Your task to perform on an android device: Open calendar and show me the second week of next month Image 0: 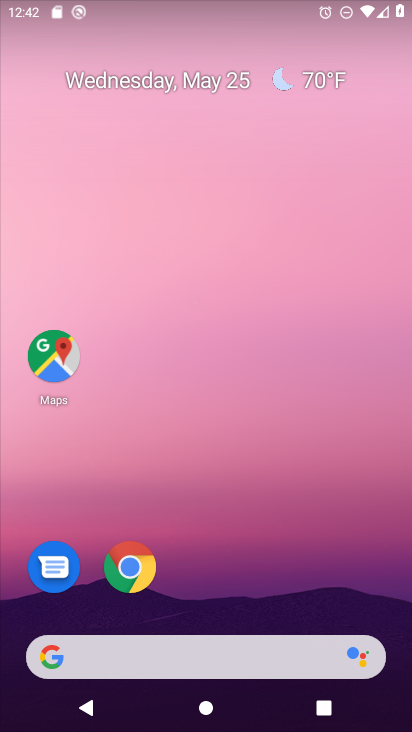
Step 0: drag from (394, 717) to (360, 275)
Your task to perform on an android device: Open calendar and show me the second week of next month Image 1: 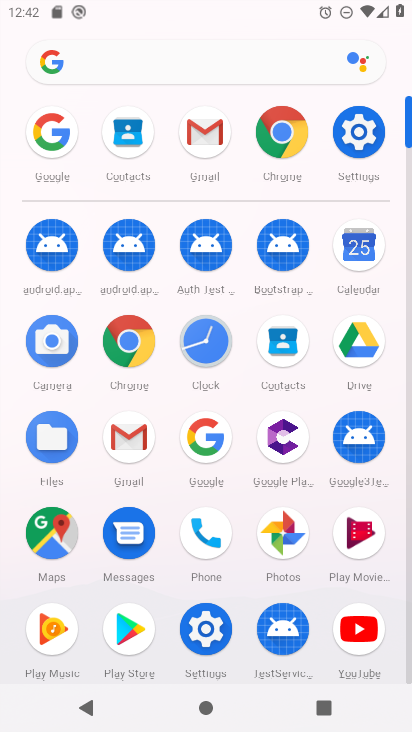
Step 1: click (359, 250)
Your task to perform on an android device: Open calendar and show me the second week of next month Image 2: 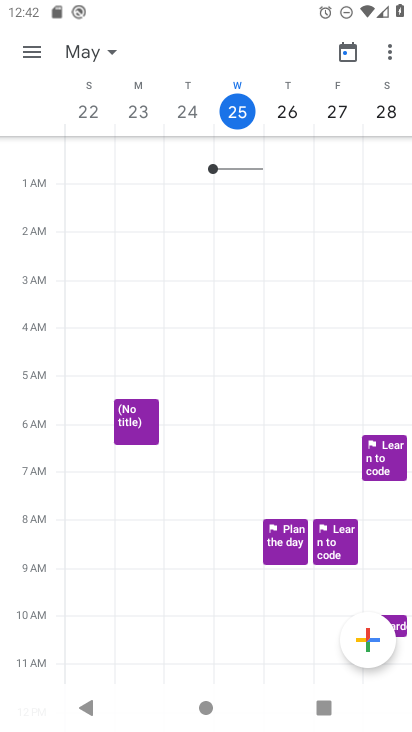
Step 2: click (111, 50)
Your task to perform on an android device: Open calendar and show me the second week of next month Image 3: 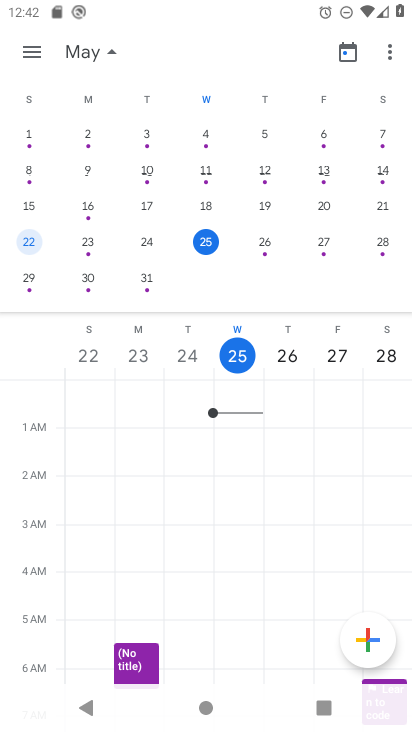
Step 3: drag from (391, 174) to (56, 159)
Your task to perform on an android device: Open calendar and show me the second week of next month Image 4: 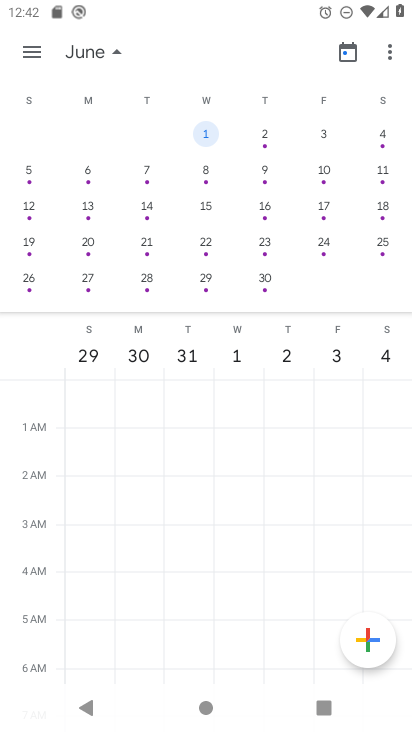
Step 4: click (262, 167)
Your task to perform on an android device: Open calendar and show me the second week of next month Image 5: 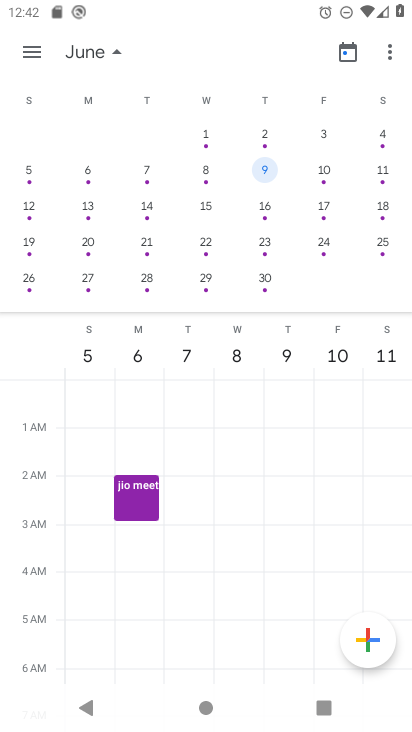
Step 5: click (33, 44)
Your task to perform on an android device: Open calendar and show me the second week of next month Image 6: 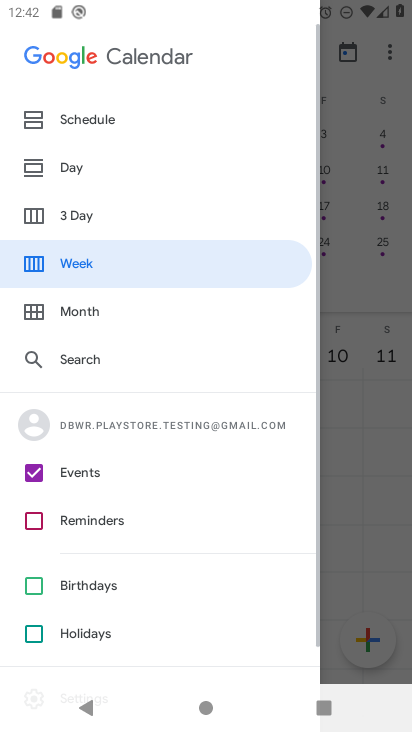
Step 6: click (66, 268)
Your task to perform on an android device: Open calendar and show me the second week of next month Image 7: 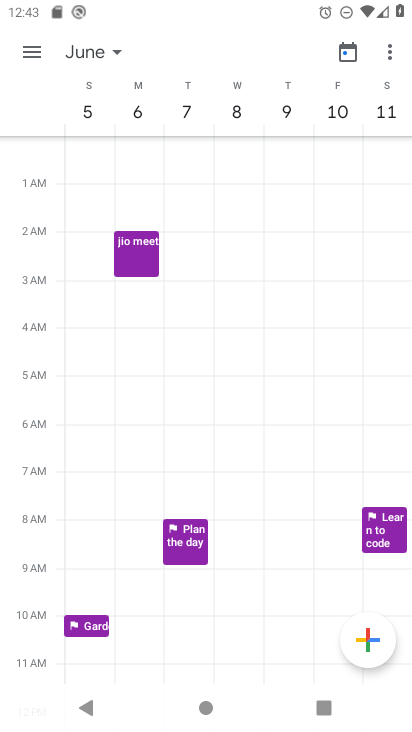
Step 7: task complete